Your task to perform on an android device: Play the last video I watched on Youtube Image 0: 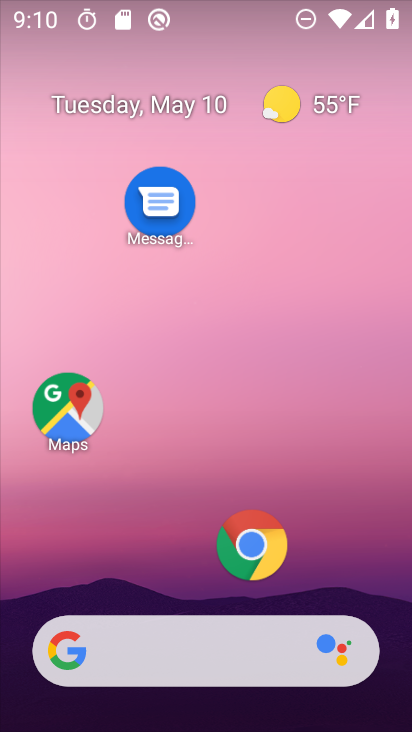
Step 0: drag from (175, 582) to (207, 115)
Your task to perform on an android device: Play the last video I watched on Youtube Image 1: 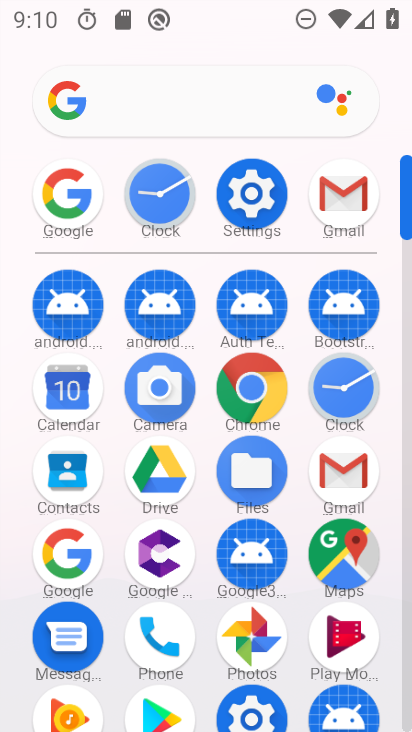
Step 1: drag from (211, 638) to (243, 177)
Your task to perform on an android device: Play the last video I watched on Youtube Image 2: 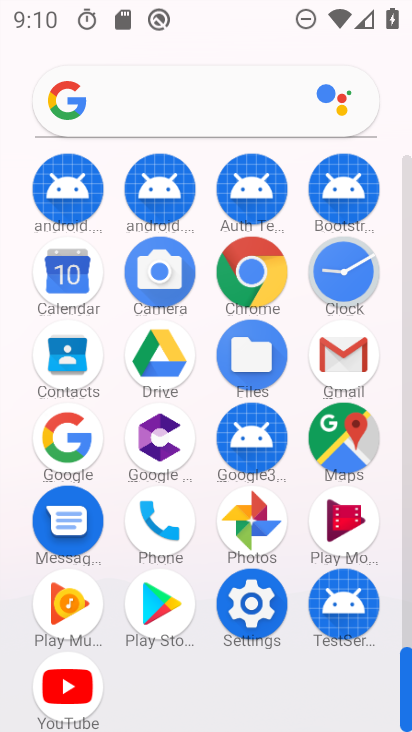
Step 2: click (65, 667)
Your task to perform on an android device: Play the last video I watched on Youtube Image 3: 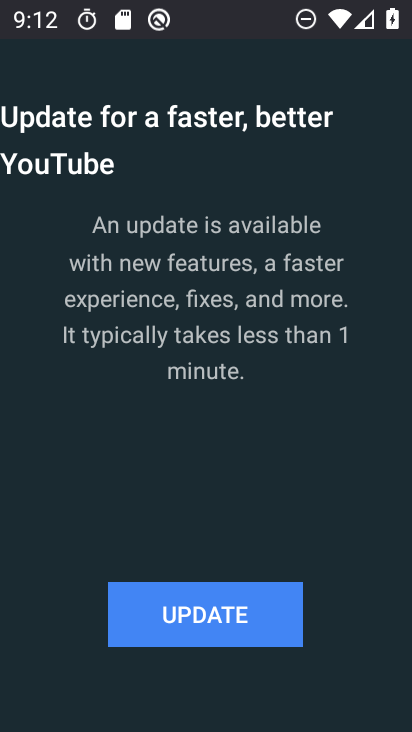
Step 3: click (274, 604)
Your task to perform on an android device: Play the last video I watched on Youtube Image 4: 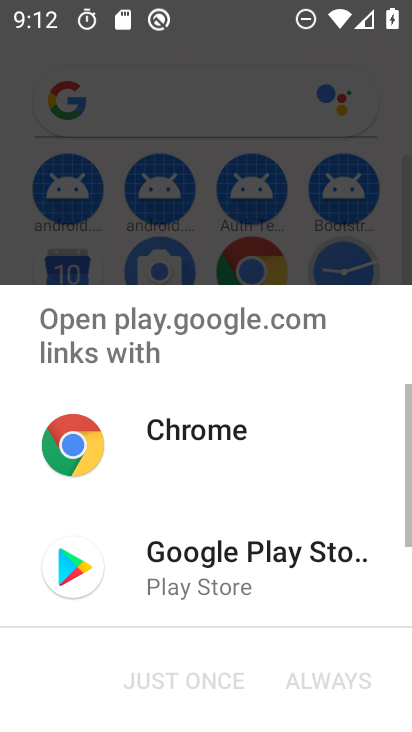
Step 4: click (243, 541)
Your task to perform on an android device: Play the last video I watched on Youtube Image 5: 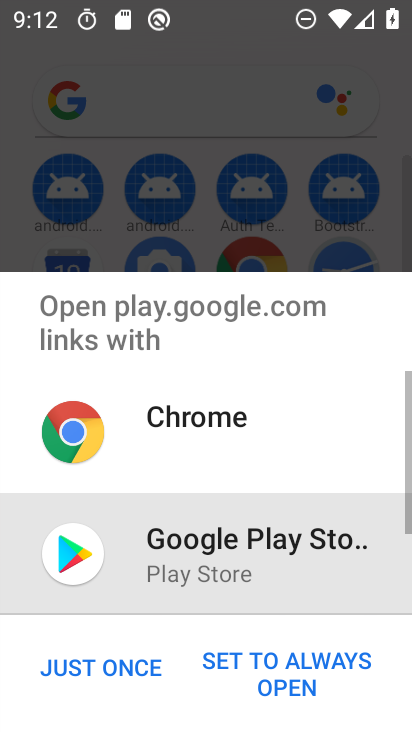
Step 5: click (195, 677)
Your task to perform on an android device: Play the last video I watched on Youtube Image 6: 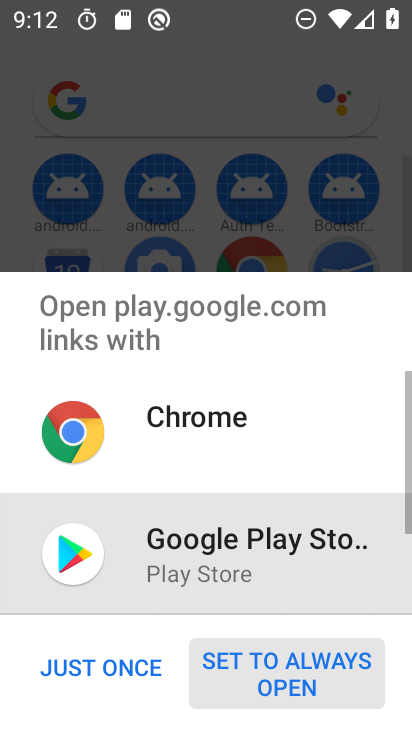
Step 6: click (108, 674)
Your task to perform on an android device: Play the last video I watched on Youtube Image 7: 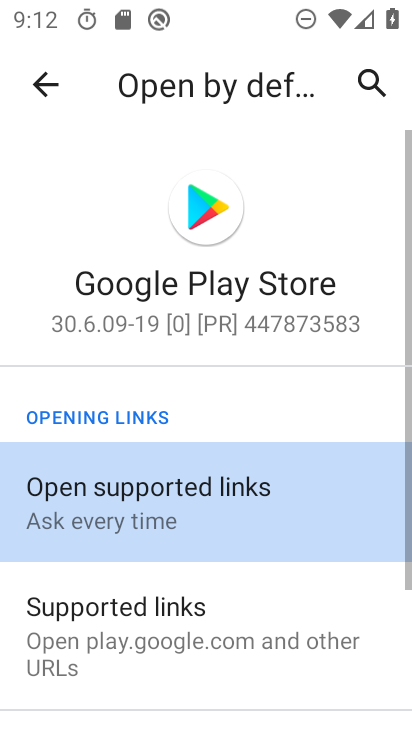
Step 7: click (37, 97)
Your task to perform on an android device: Play the last video I watched on Youtube Image 8: 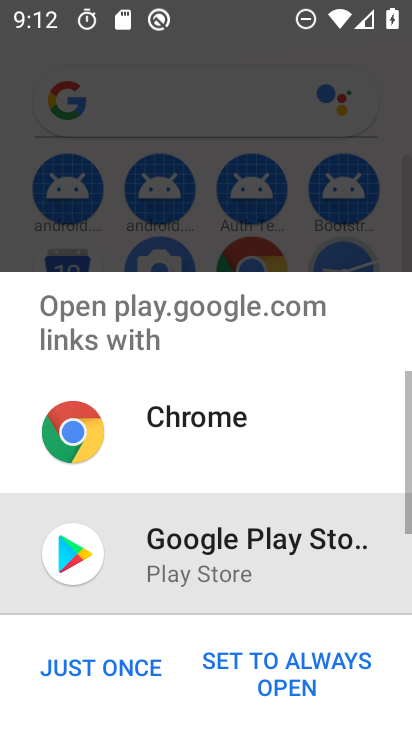
Step 8: click (127, 681)
Your task to perform on an android device: Play the last video I watched on Youtube Image 9: 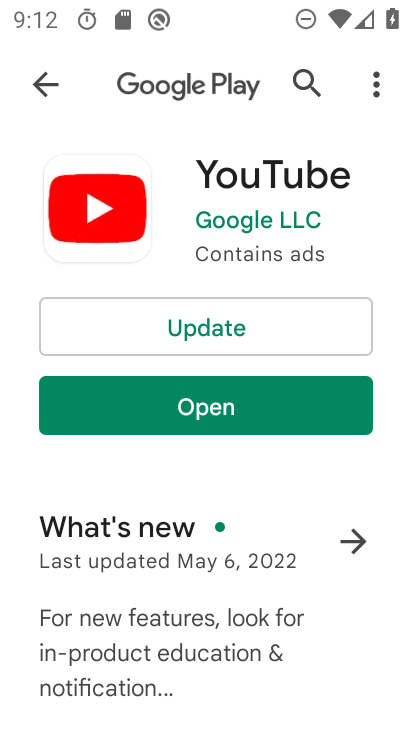
Step 9: click (202, 340)
Your task to perform on an android device: Play the last video I watched on Youtube Image 10: 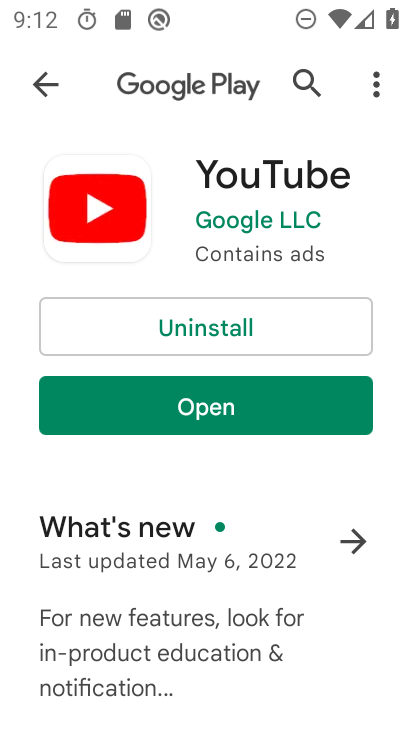
Step 10: click (233, 412)
Your task to perform on an android device: Play the last video I watched on Youtube Image 11: 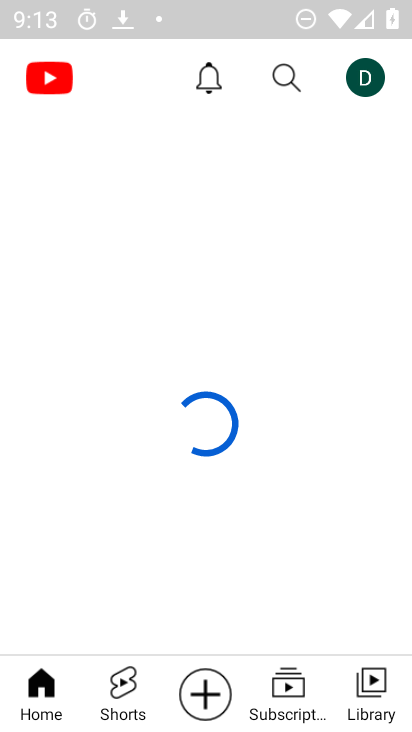
Step 11: click (362, 77)
Your task to perform on an android device: Play the last video I watched on Youtube Image 12: 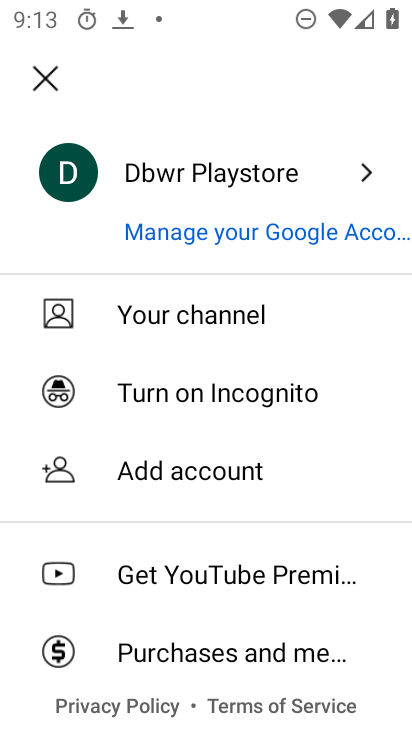
Step 12: drag from (239, 618) to (254, 289)
Your task to perform on an android device: Play the last video I watched on Youtube Image 13: 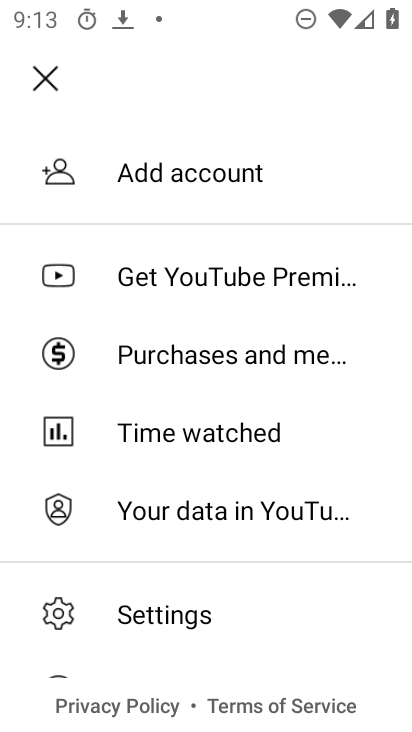
Step 13: click (51, 79)
Your task to perform on an android device: Play the last video I watched on Youtube Image 14: 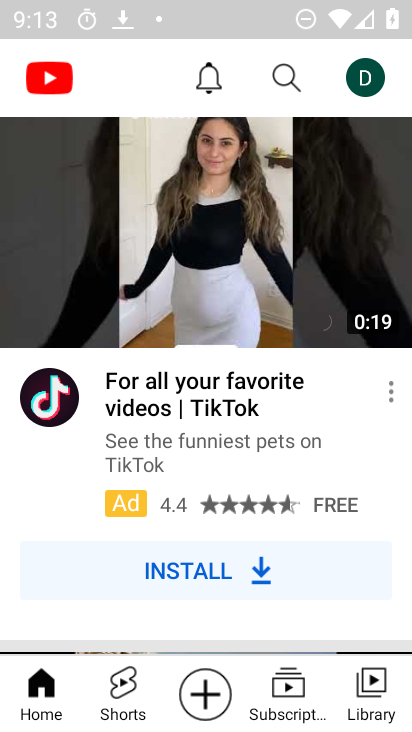
Step 14: click (365, 698)
Your task to perform on an android device: Play the last video I watched on Youtube Image 15: 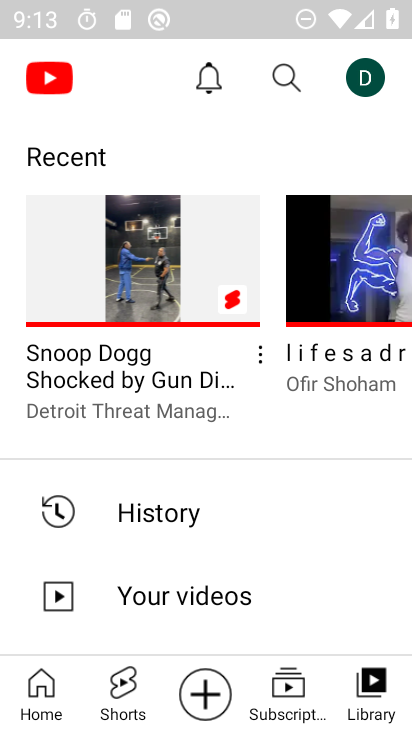
Step 15: click (204, 515)
Your task to perform on an android device: Play the last video I watched on Youtube Image 16: 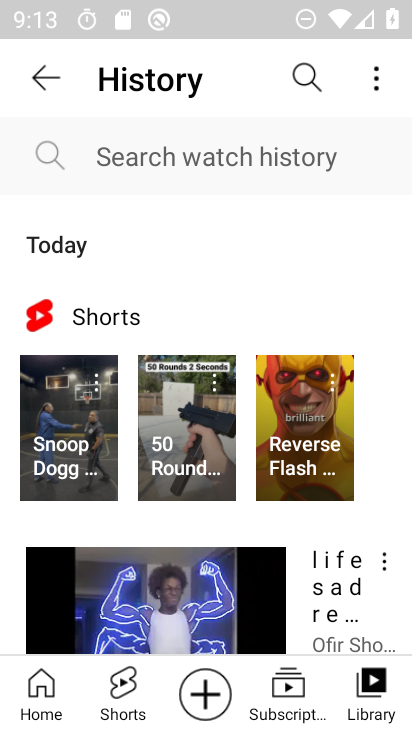
Step 16: drag from (212, 587) to (225, 379)
Your task to perform on an android device: Play the last video I watched on Youtube Image 17: 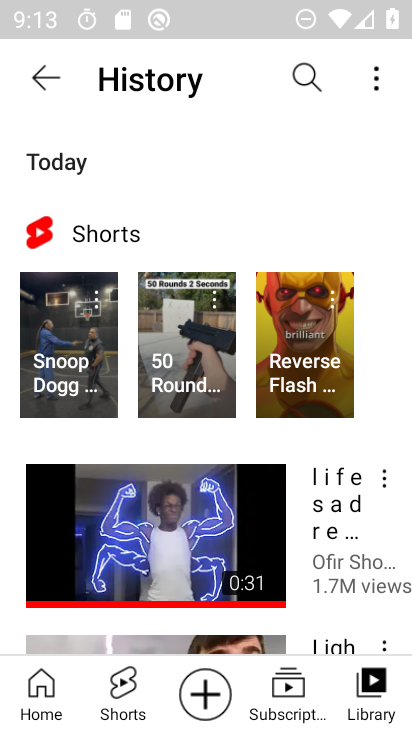
Step 17: click (174, 509)
Your task to perform on an android device: Play the last video I watched on Youtube Image 18: 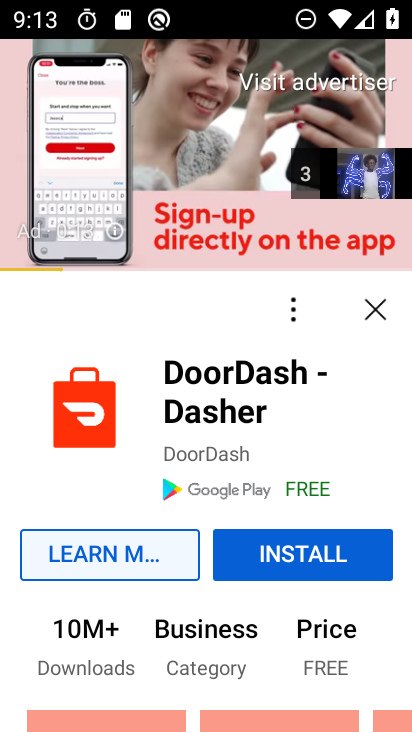
Step 18: task complete